Your task to perform on an android device: change alarm snooze length Image 0: 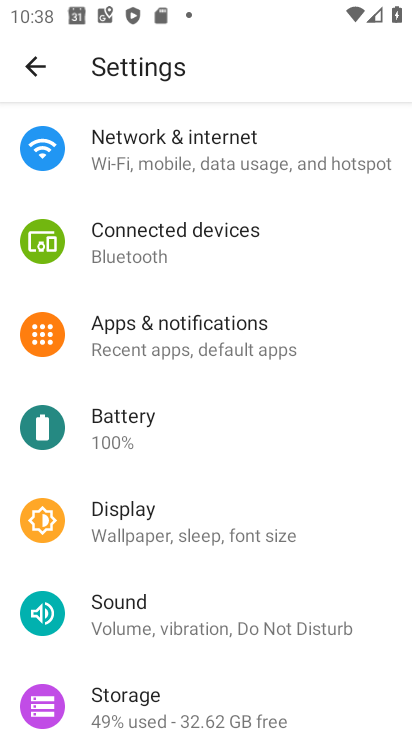
Step 0: press home button
Your task to perform on an android device: change alarm snooze length Image 1: 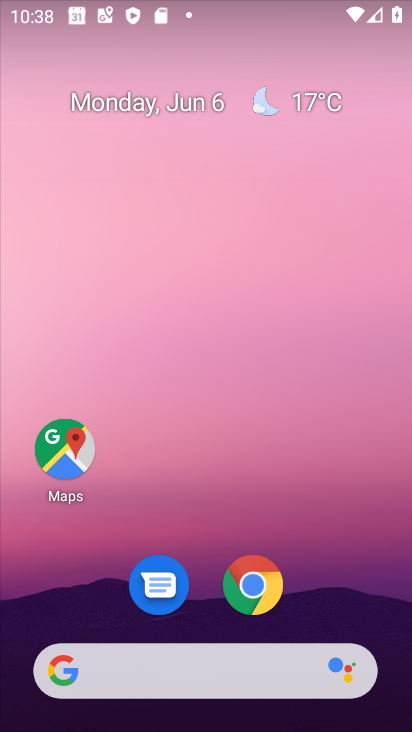
Step 1: drag from (236, 504) to (229, 18)
Your task to perform on an android device: change alarm snooze length Image 2: 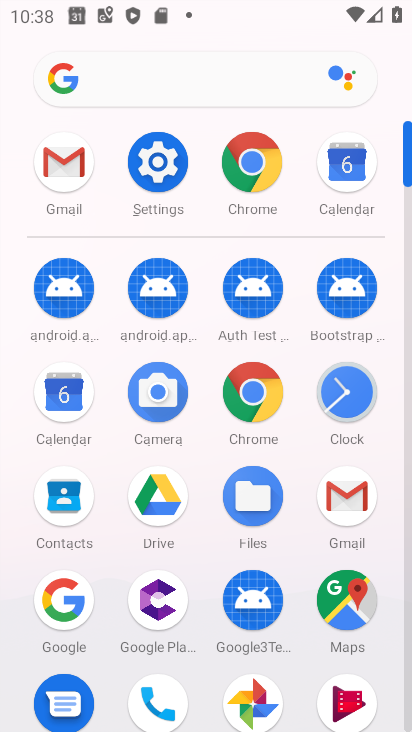
Step 2: click (347, 393)
Your task to perform on an android device: change alarm snooze length Image 3: 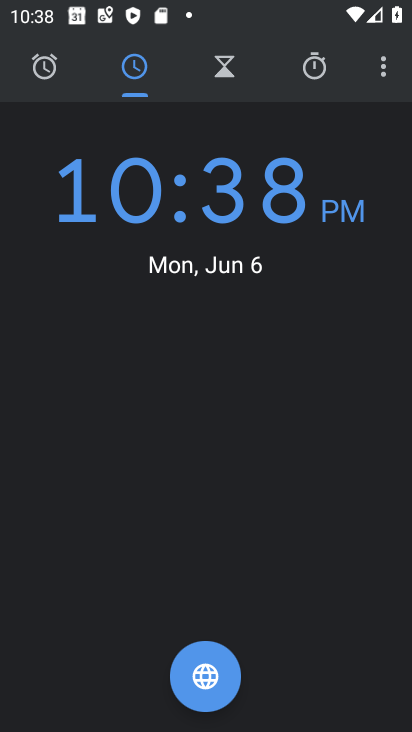
Step 3: click (385, 66)
Your task to perform on an android device: change alarm snooze length Image 4: 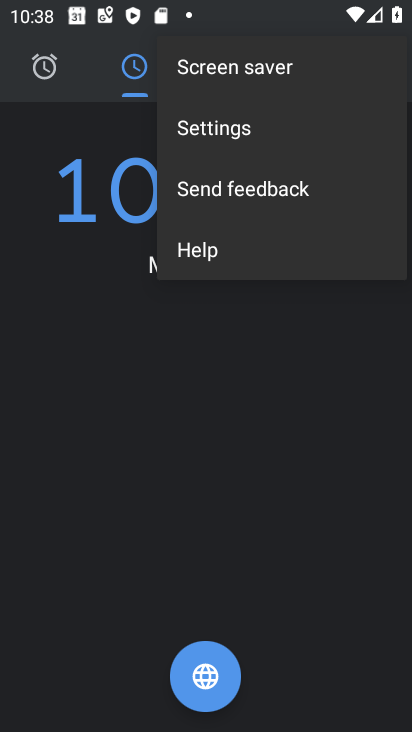
Step 4: click (283, 122)
Your task to perform on an android device: change alarm snooze length Image 5: 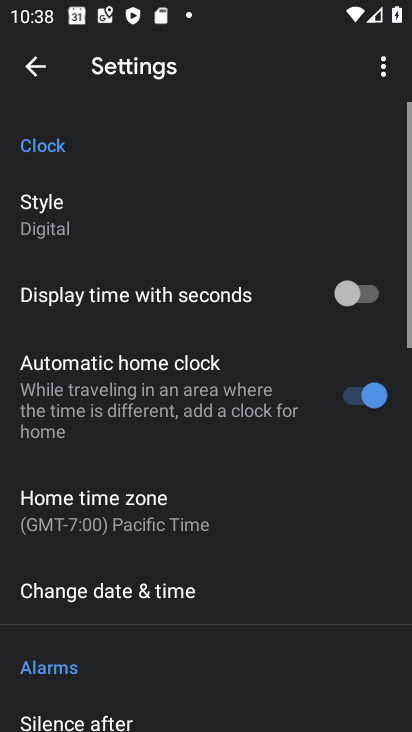
Step 5: drag from (144, 473) to (160, 212)
Your task to perform on an android device: change alarm snooze length Image 6: 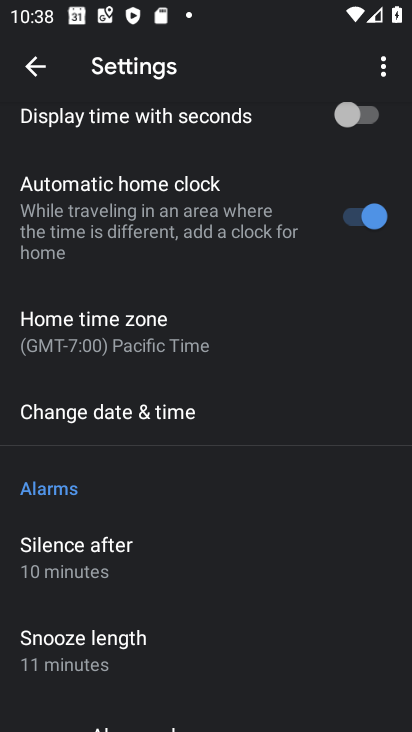
Step 6: click (120, 648)
Your task to perform on an android device: change alarm snooze length Image 7: 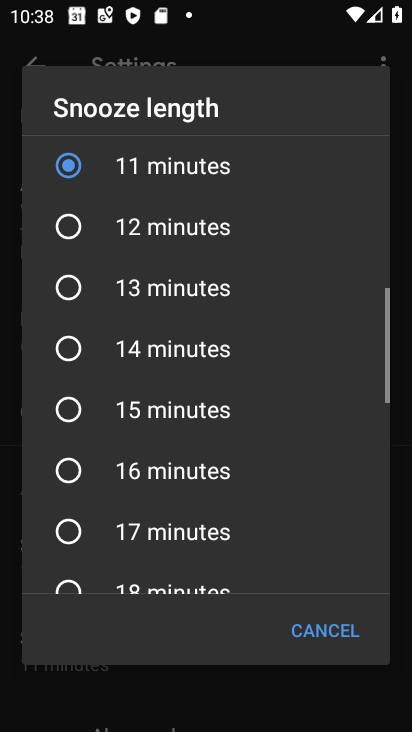
Step 7: click (92, 228)
Your task to perform on an android device: change alarm snooze length Image 8: 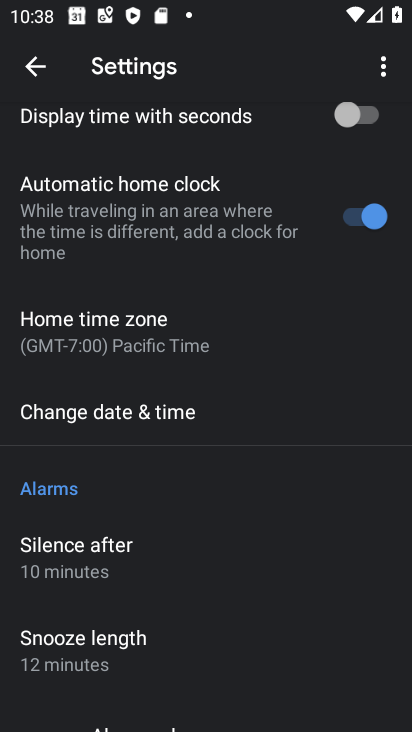
Step 8: task complete